Your task to perform on an android device: Go to settings Image 0: 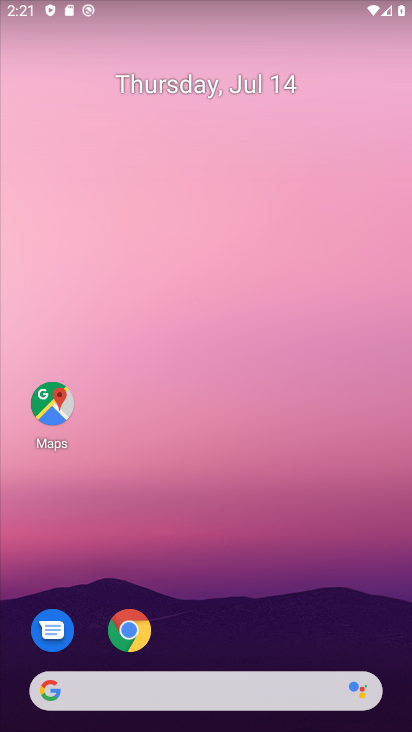
Step 0: drag from (210, 636) to (237, 115)
Your task to perform on an android device: Go to settings Image 1: 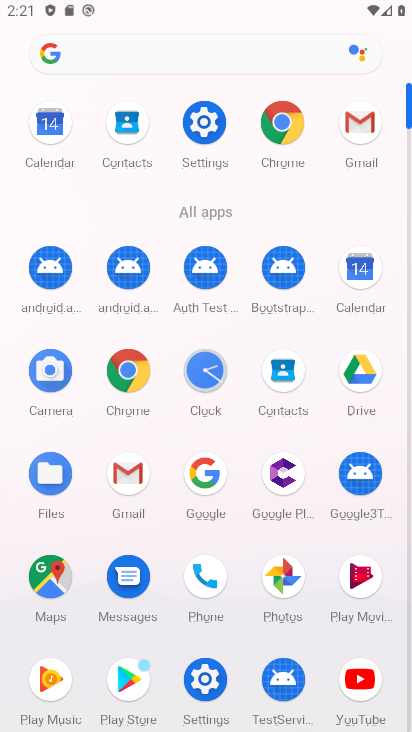
Step 1: click (206, 115)
Your task to perform on an android device: Go to settings Image 2: 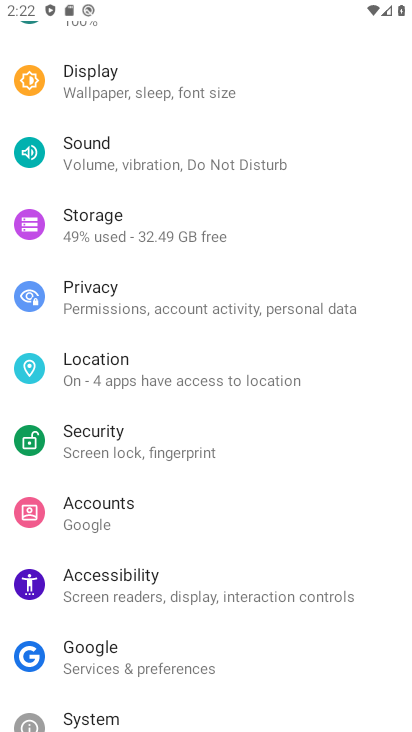
Step 2: task complete